Your task to perform on an android device: Open Chrome and go to the settings page Image 0: 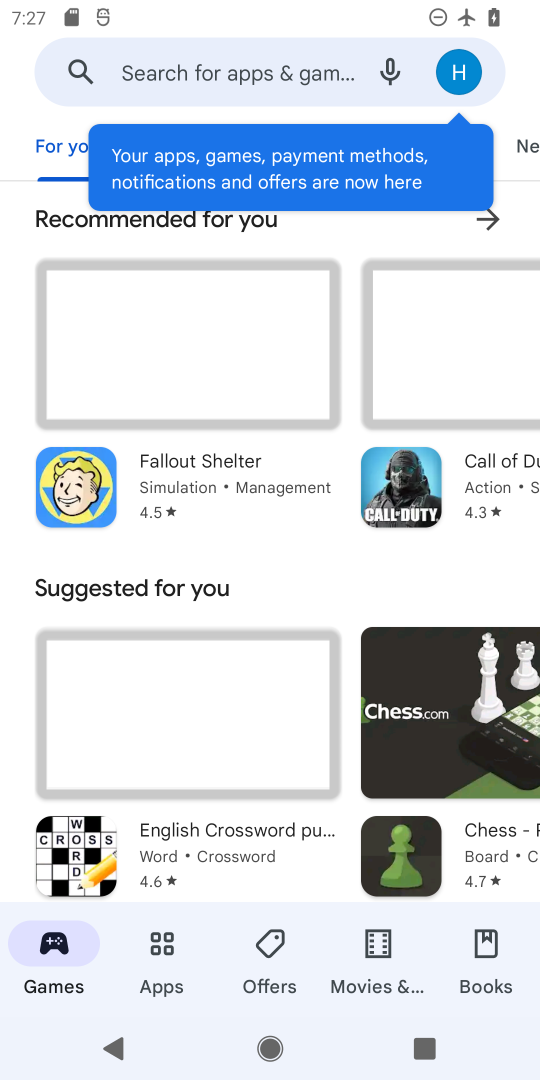
Step 0: press home button
Your task to perform on an android device: Open Chrome and go to the settings page Image 1: 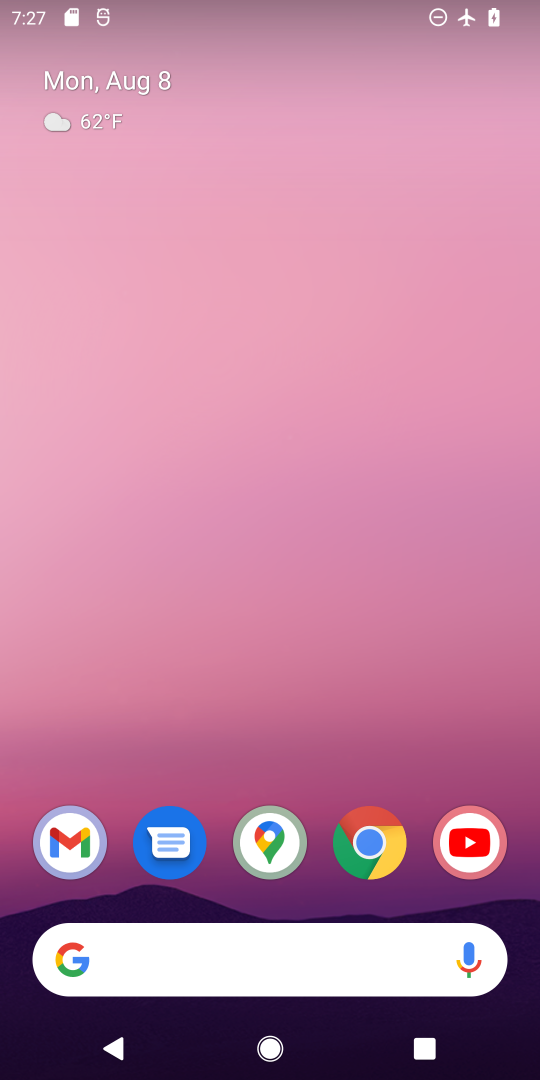
Step 1: click (344, 842)
Your task to perform on an android device: Open Chrome and go to the settings page Image 2: 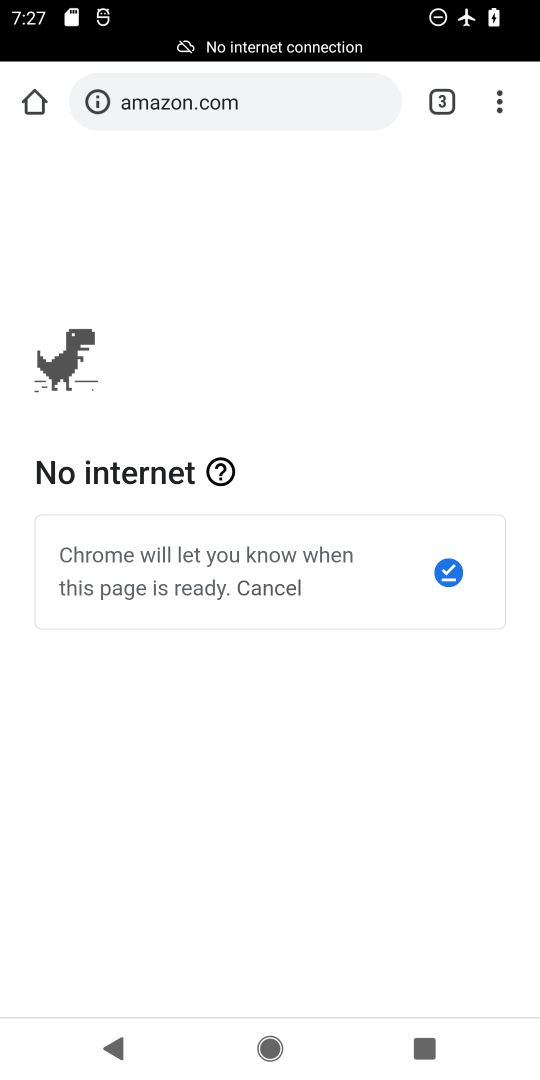
Step 2: task complete